Your task to perform on an android device: What's on my calendar today? Image 0: 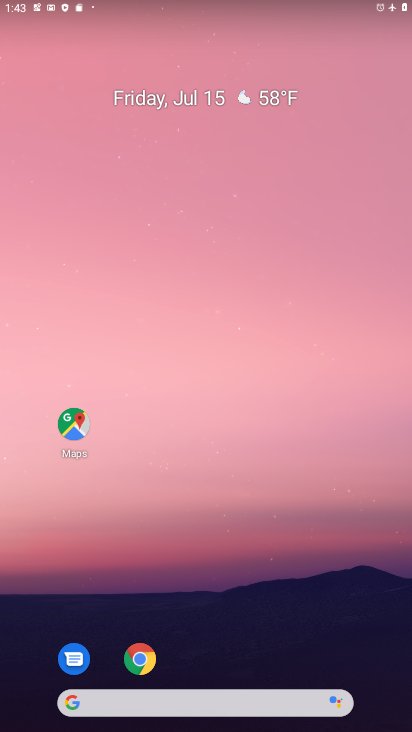
Step 0: click (141, 658)
Your task to perform on an android device: What's on my calendar today? Image 1: 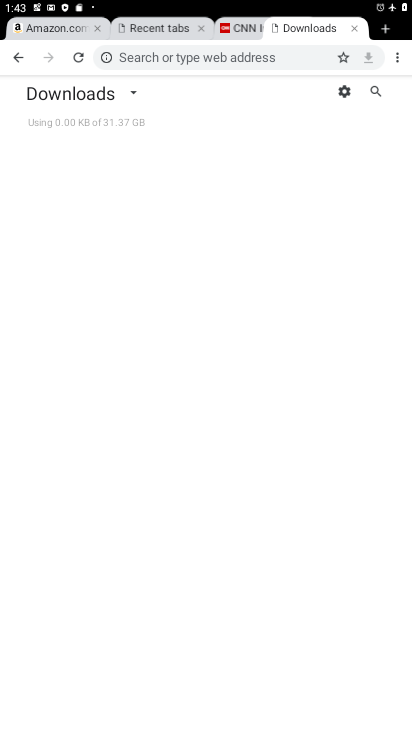
Step 1: press home button
Your task to perform on an android device: What's on my calendar today? Image 2: 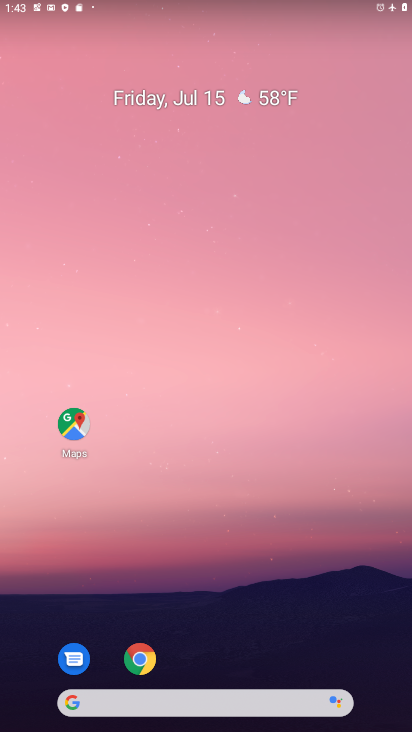
Step 2: drag from (225, 719) to (228, 303)
Your task to perform on an android device: What's on my calendar today? Image 3: 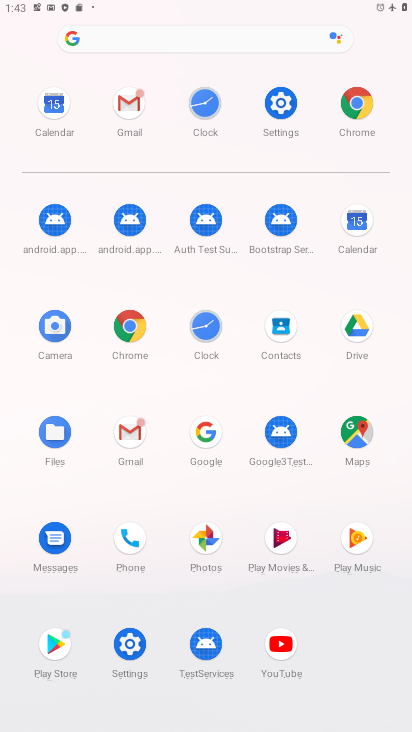
Step 3: click (362, 217)
Your task to perform on an android device: What's on my calendar today? Image 4: 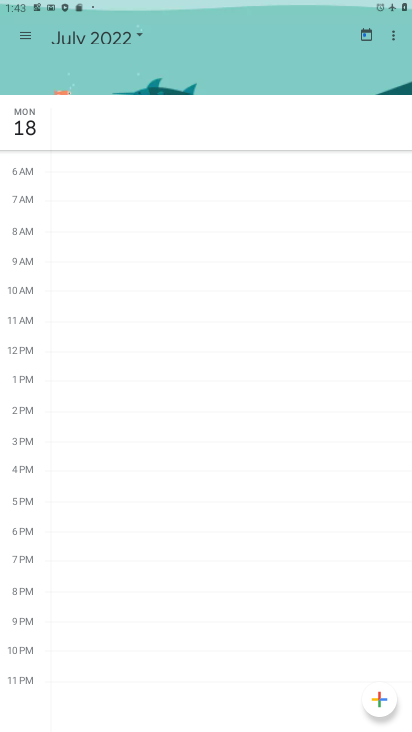
Step 4: click (137, 36)
Your task to perform on an android device: What's on my calendar today? Image 5: 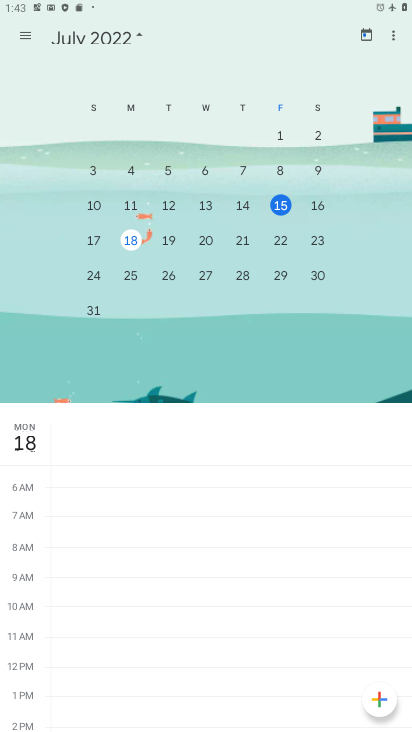
Step 5: click (283, 198)
Your task to perform on an android device: What's on my calendar today? Image 6: 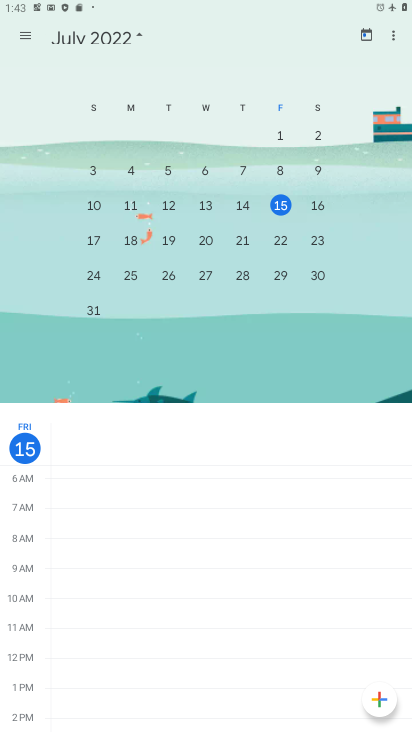
Step 6: click (282, 203)
Your task to perform on an android device: What's on my calendar today? Image 7: 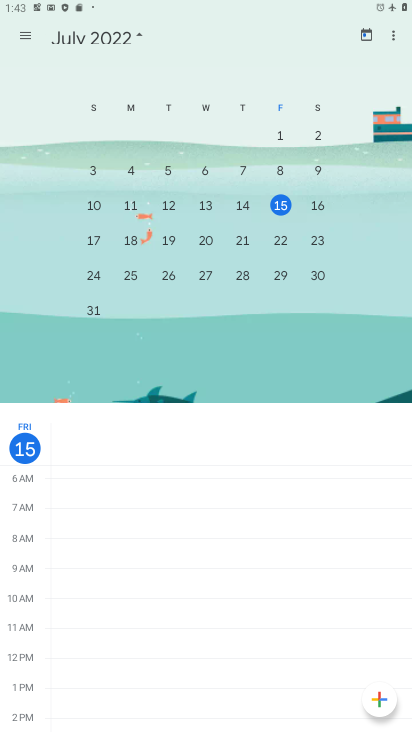
Step 7: click (28, 447)
Your task to perform on an android device: What's on my calendar today? Image 8: 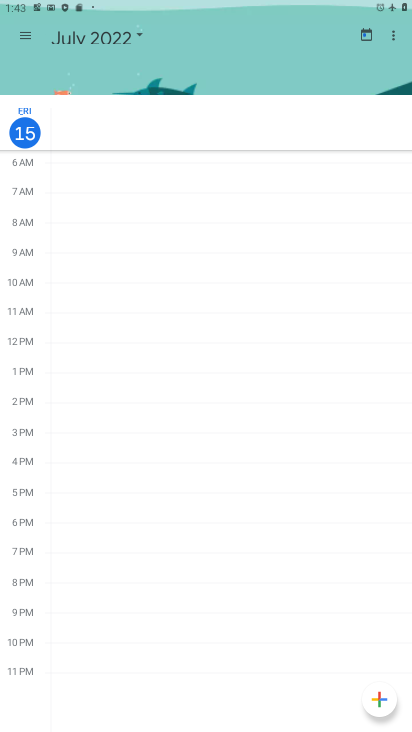
Step 8: task complete